Your task to perform on an android device: toggle show notifications on the lock screen Image 0: 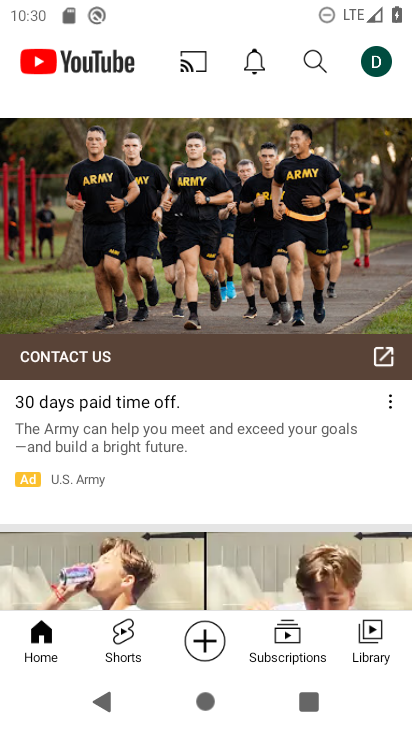
Step 0: press home button
Your task to perform on an android device: toggle show notifications on the lock screen Image 1: 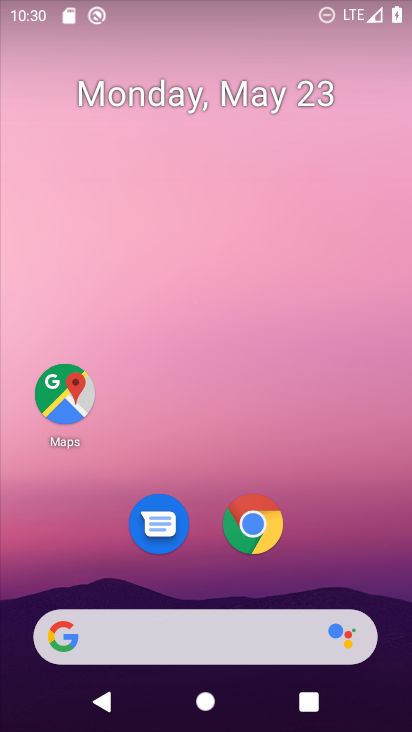
Step 1: drag from (311, 507) to (325, 36)
Your task to perform on an android device: toggle show notifications on the lock screen Image 2: 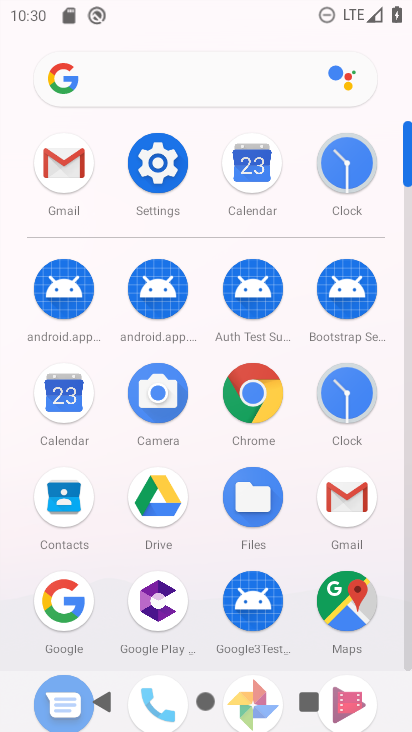
Step 2: click (175, 157)
Your task to perform on an android device: toggle show notifications on the lock screen Image 3: 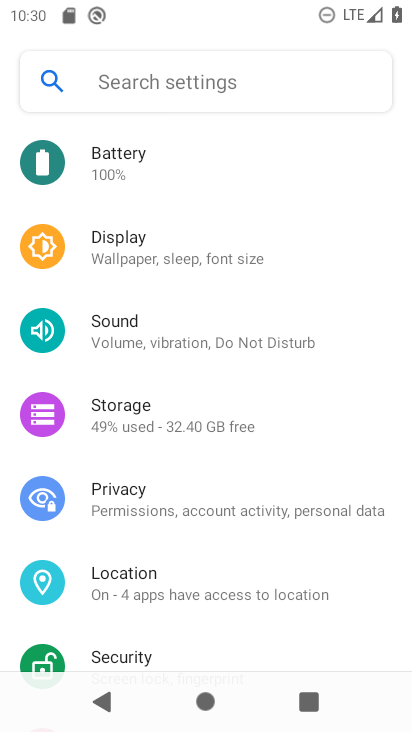
Step 3: drag from (242, 234) to (216, 630)
Your task to perform on an android device: toggle show notifications on the lock screen Image 4: 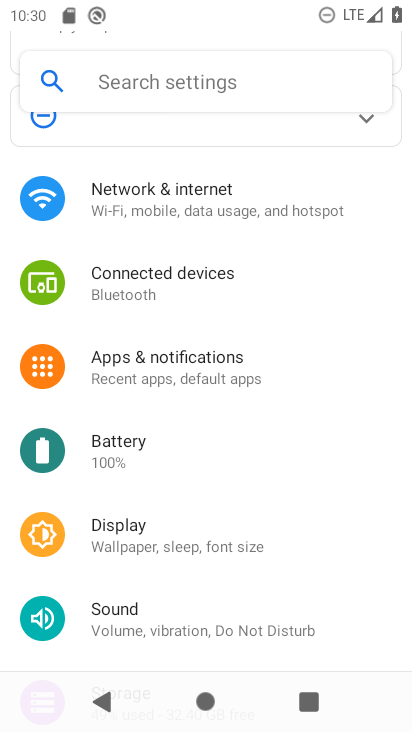
Step 4: click (191, 371)
Your task to perform on an android device: toggle show notifications on the lock screen Image 5: 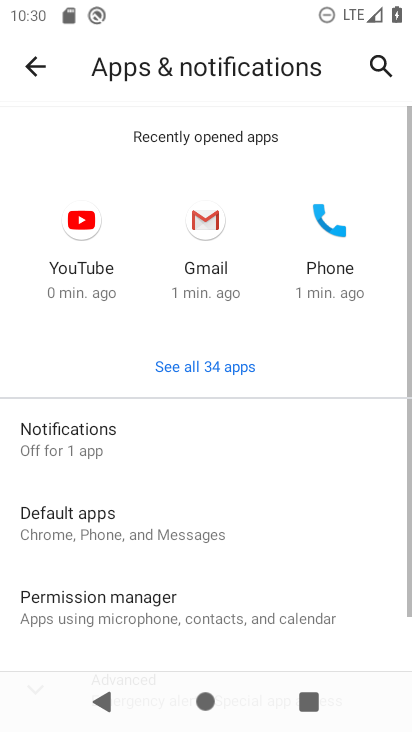
Step 5: click (169, 428)
Your task to perform on an android device: toggle show notifications on the lock screen Image 6: 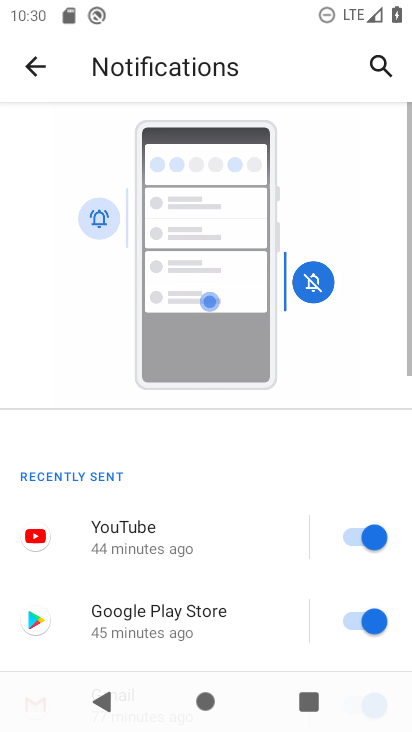
Step 6: drag from (243, 563) to (260, 13)
Your task to perform on an android device: toggle show notifications on the lock screen Image 7: 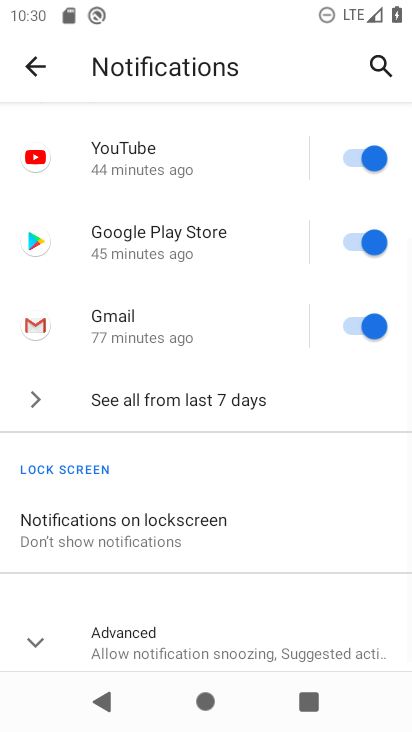
Step 7: click (170, 521)
Your task to perform on an android device: toggle show notifications on the lock screen Image 8: 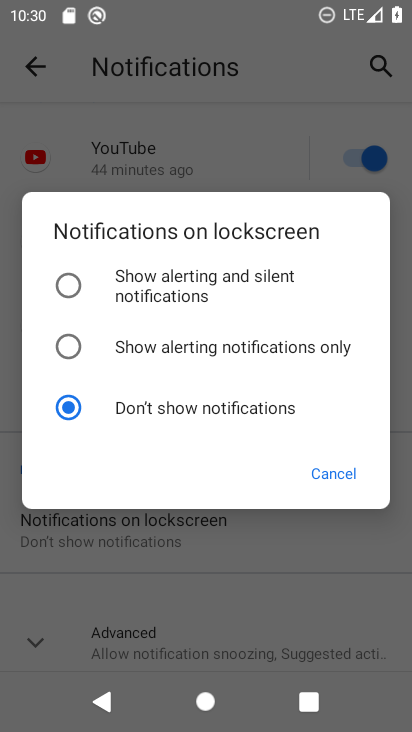
Step 8: click (116, 273)
Your task to perform on an android device: toggle show notifications on the lock screen Image 9: 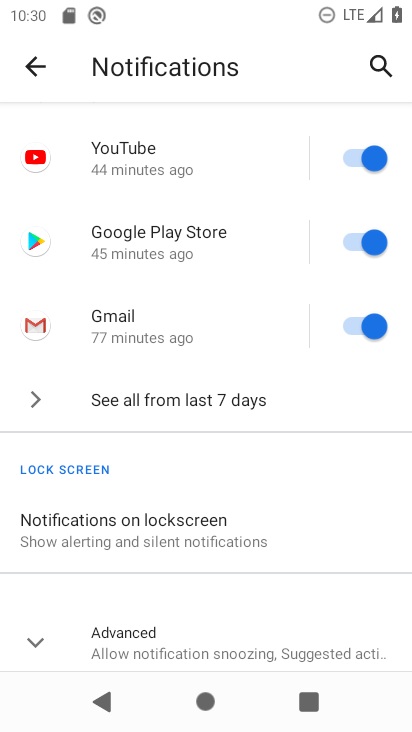
Step 9: task complete